Your task to perform on an android device: find which apps use the phone's location Image 0: 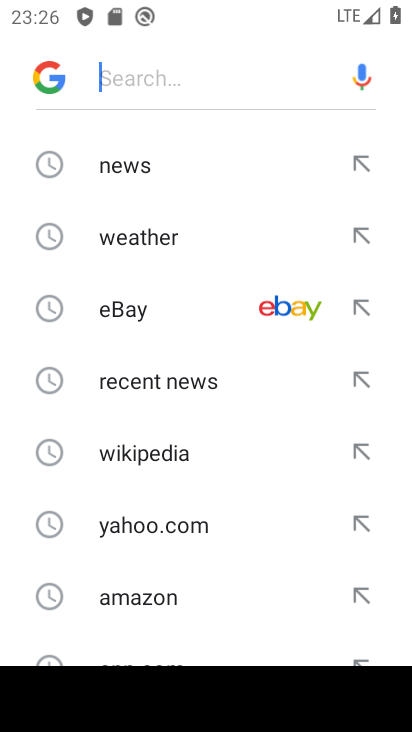
Step 0: press home button
Your task to perform on an android device: find which apps use the phone's location Image 1: 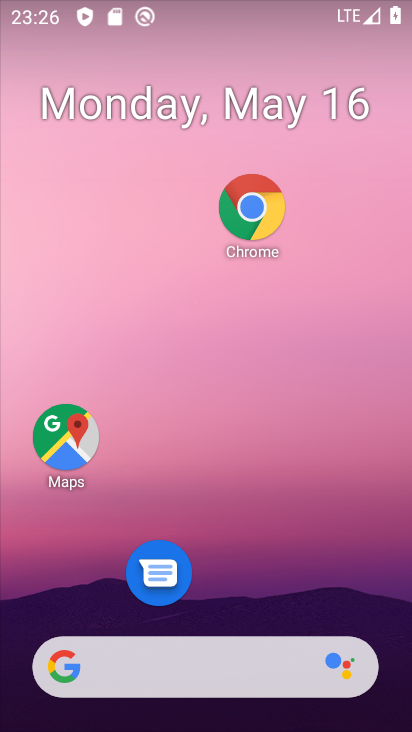
Step 1: drag from (295, 654) to (300, 2)
Your task to perform on an android device: find which apps use the phone's location Image 2: 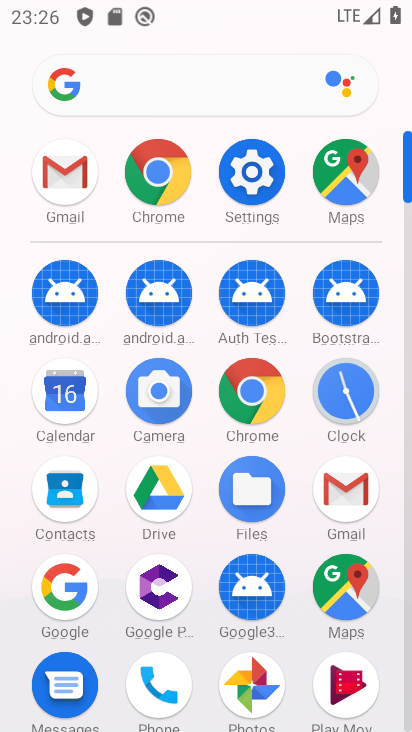
Step 2: click (238, 163)
Your task to perform on an android device: find which apps use the phone's location Image 3: 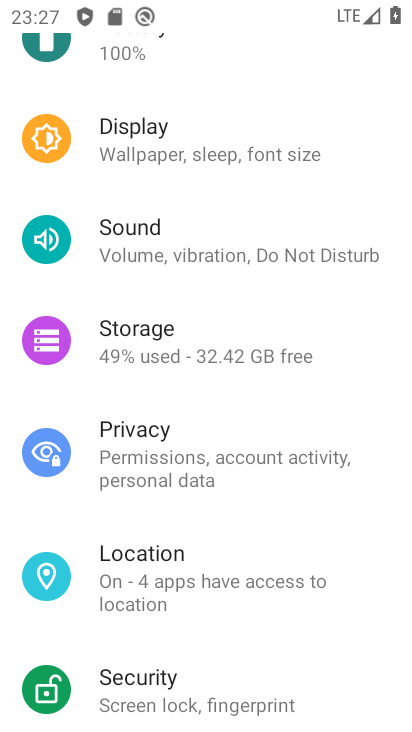
Step 3: click (207, 588)
Your task to perform on an android device: find which apps use the phone's location Image 4: 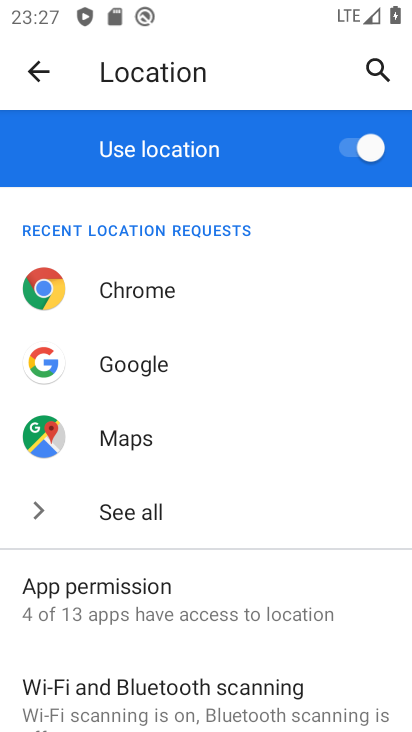
Step 4: drag from (223, 664) to (253, 175)
Your task to perform on an android device: find which apps use the phone's location Image 5: 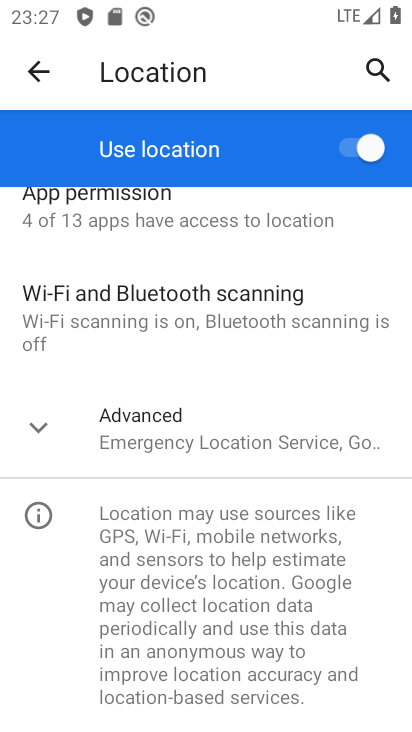
Step 5: click (231, 233)
Your task to perform on an android device: find which apps use the phone's location Image 6: 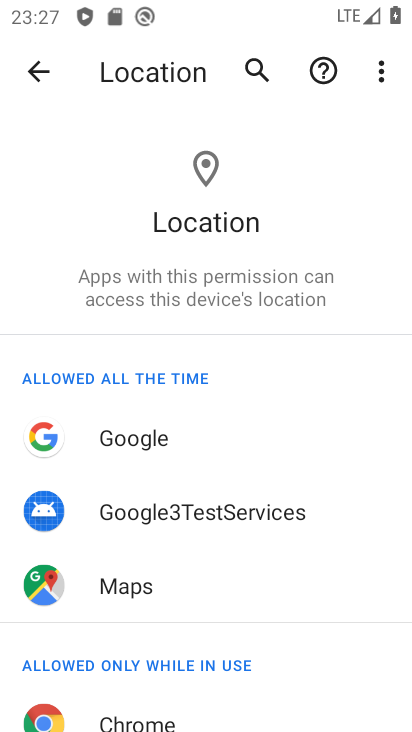
Step 6: task complete